Your task to perform on an android device: check google app version Image 0: 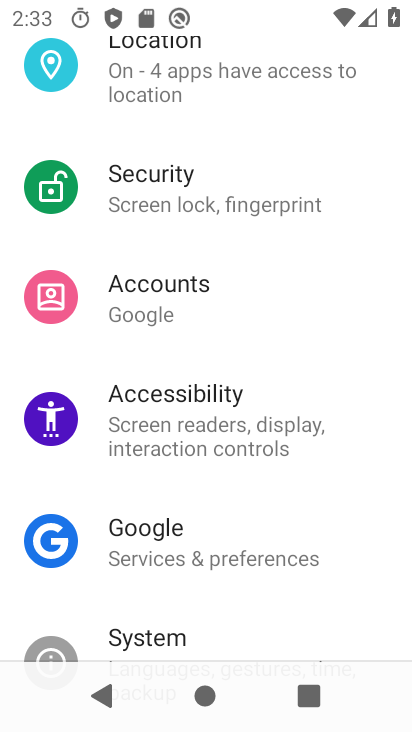
Step 0: press home button
Your task to perform on an android device: check google app version Image 1: 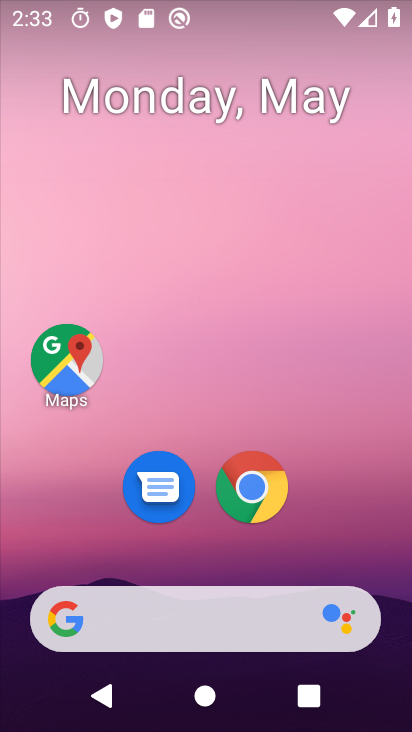
Step 1: click (56, 618)
Your task to perform on an android device: check google app version Image 2: 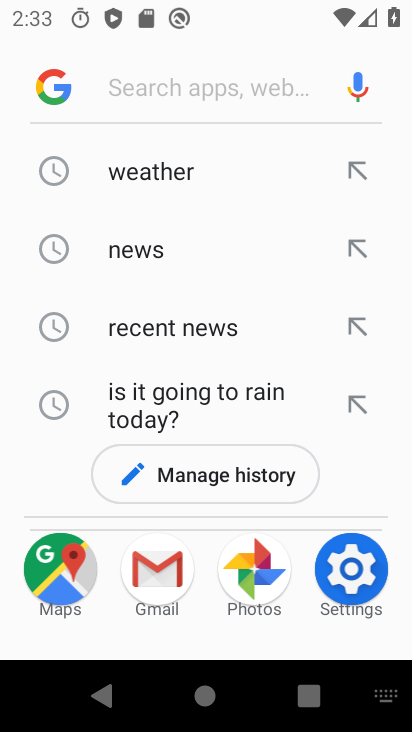
Step 2: click (64, 82)
Your task to perform on an android device: check google app version Image 3: 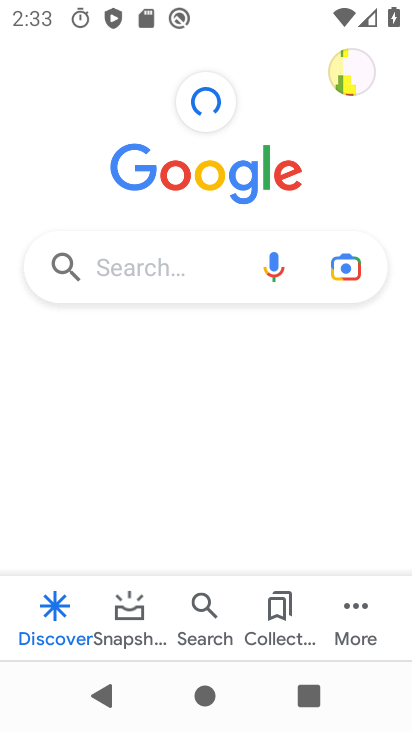
Step 3: click (349, 602)
Your task to perform on an android device: check google app version Image 4: 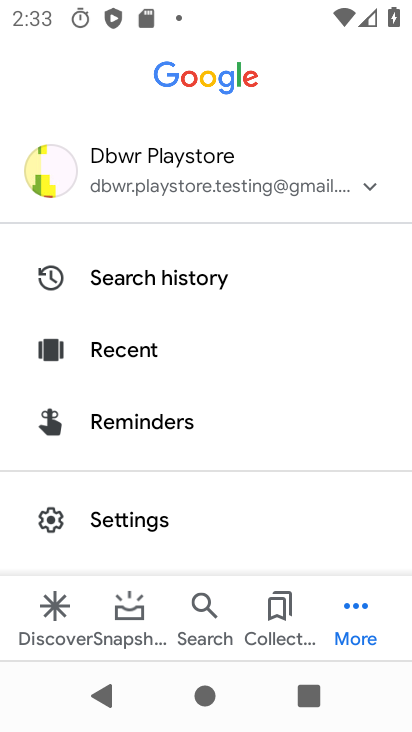
Step 4: click (159, 524)
Your task to perform on an android device: check google app version Image 5: 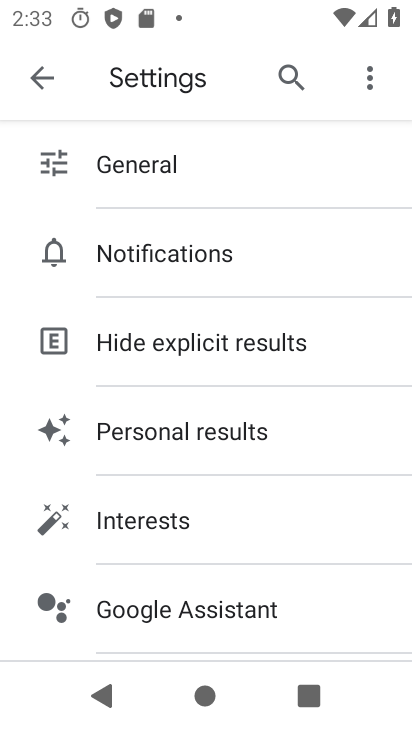
Step 5: click (143, 172)
Your task to perform on an android device: check google app version Image 6: 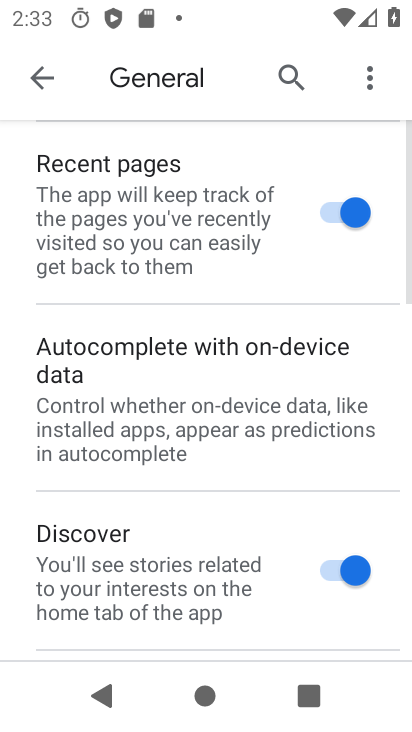
Step 6: click (49, 95)
Your task to perform on an android device: check google app version Image 7: 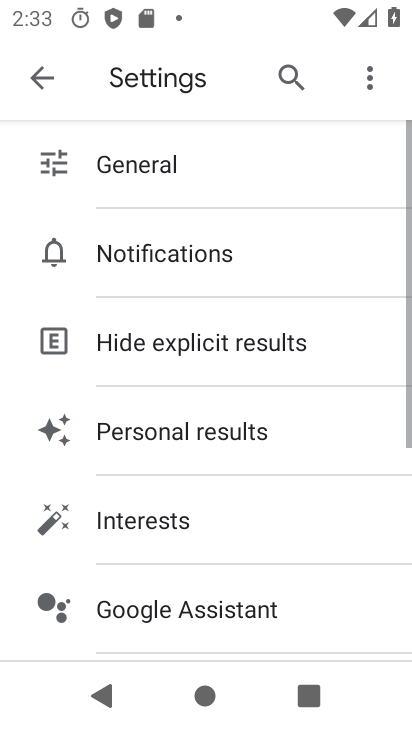
Step 7: drag from (212, 527) to (255, 106)
Your task to perform on an android device: check google app version Image 8: 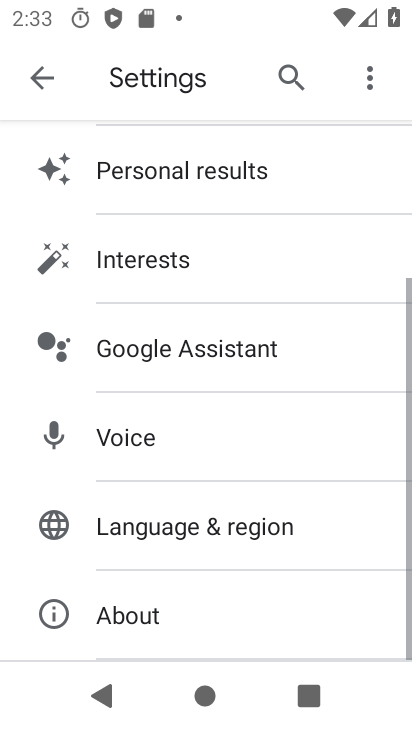
Step 8: click (140, 621)
Your task to perform on an android device: check google app version Image 9: 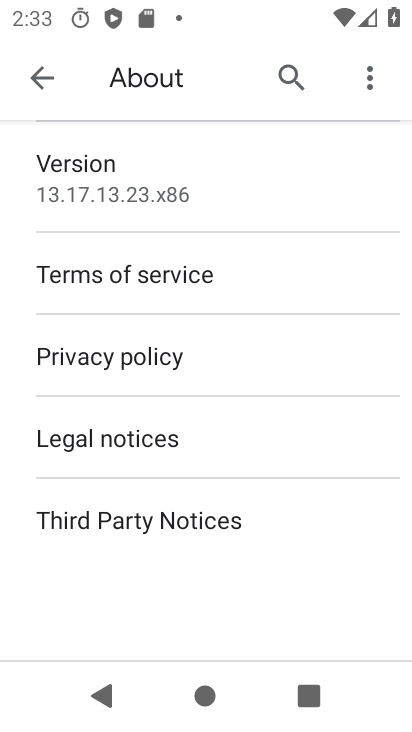
Step 9: task complete